Your task to perform on an android device: open wifi settings Image 0: 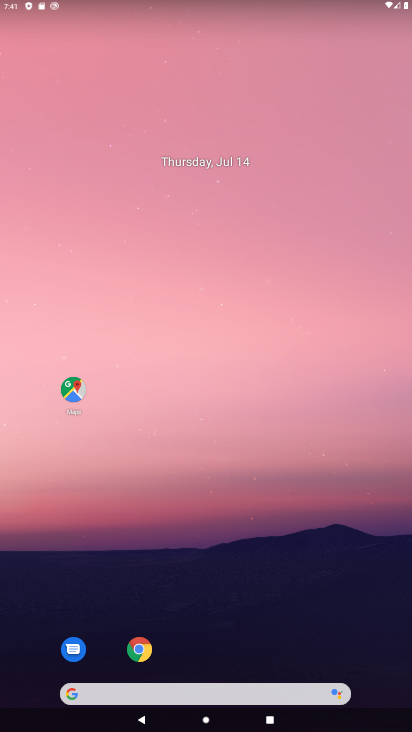
Step 0: drag from (228, 651) to (409, 713)
Your task to perform on an android device: open wifi settings Image 1: 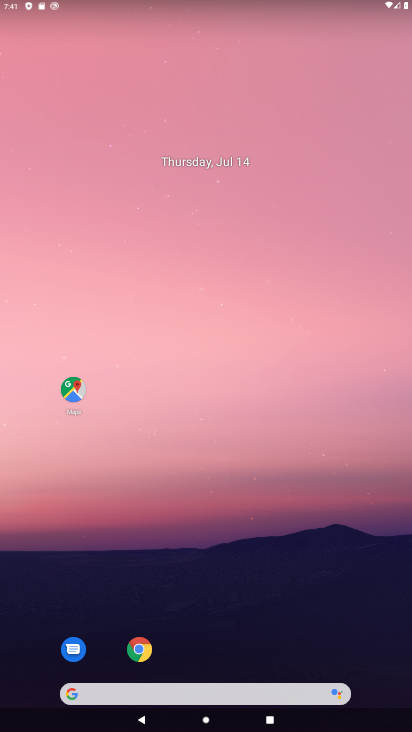
Step 1: drag from (314, 611) to (346, 143)
Your task to perform on an android device: open wifi settings Image 2: 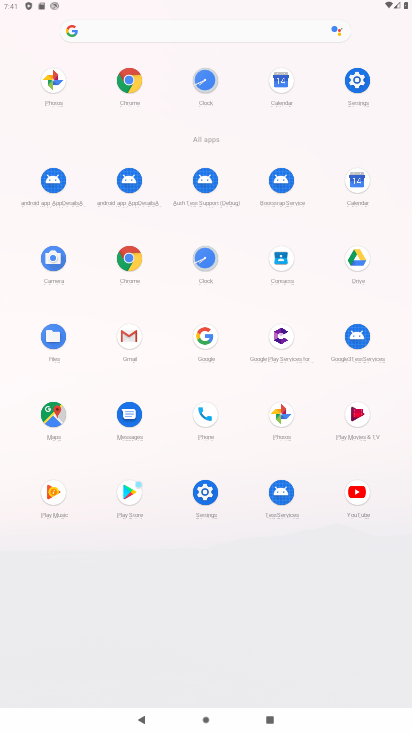
Step 2: click (369, 75)
Your task to perform on an android device: open wifi settings Image 3: 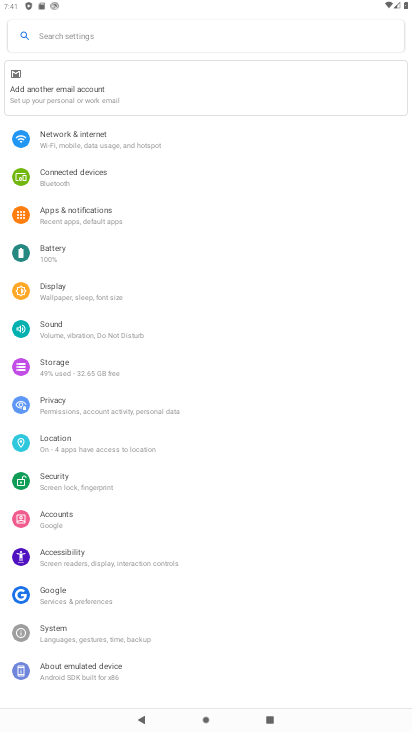
Step 3: click (55, 145)
Your task to perform on an android device: open wifi settings Image 4: 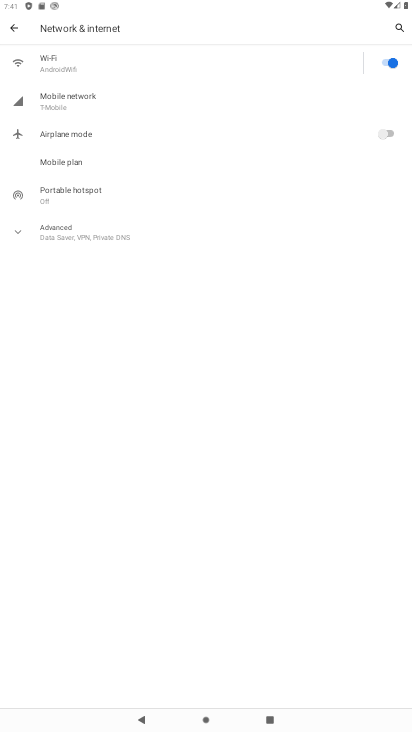
Step 4: click (48, 61)
Your task to perform on an android device: open wifi settings Image 5: 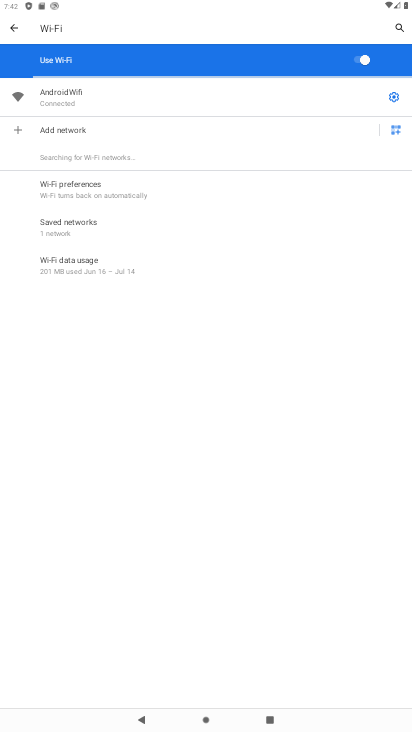
Step 5: press home button
Your task to perform on an android device: open wifi settings Image 6: 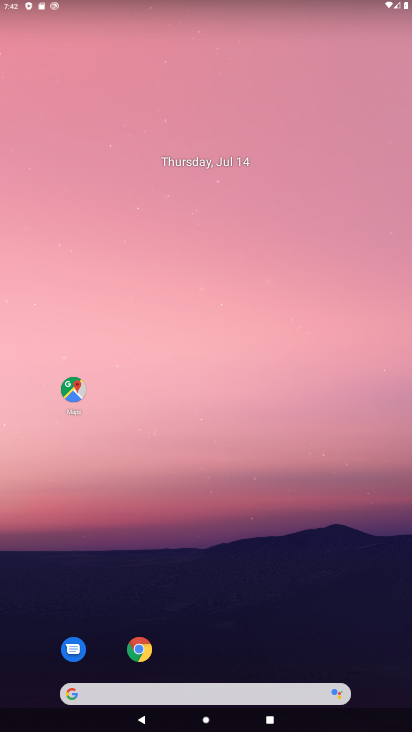
Step 6: drag from (307, 484) to (264, 9)
Your task to perform on an android device: open wifi settings Image 7: 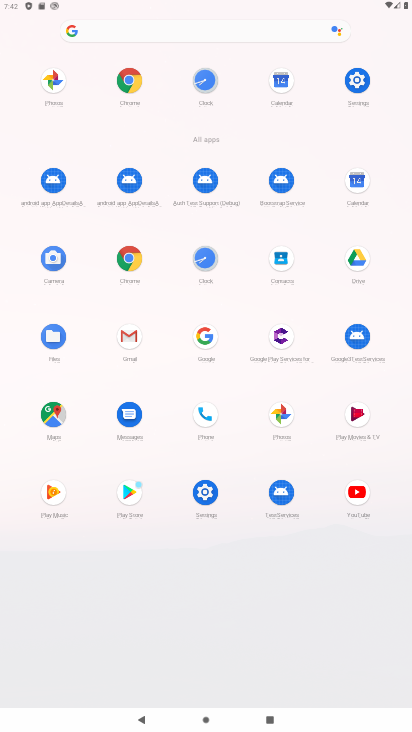
Step 7: click (354, 79)
Your task to perform on an android device: open wifi settings Image 8: 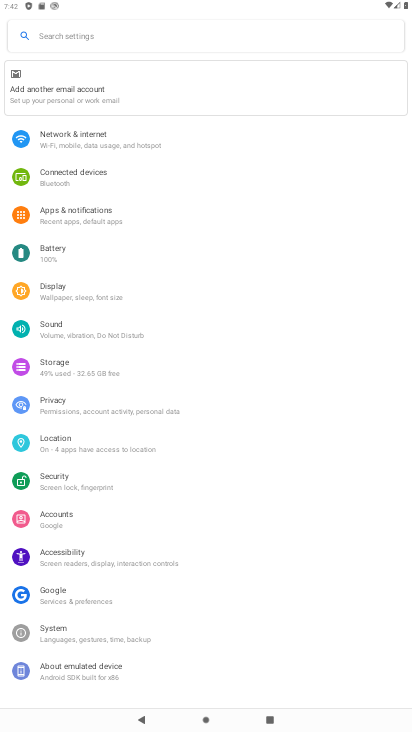
Step 8: click (105, 139)
Your task to perform on an android device: open wifi settings Image 9: 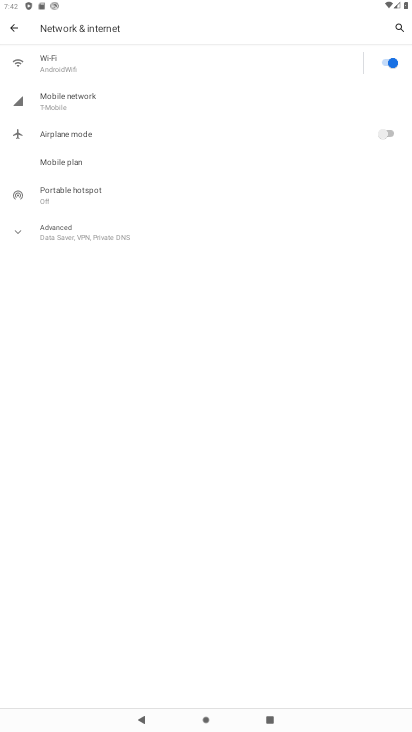
Step 9: click (59, 70)
Your task to perform on an android device: open wifi settings Image 10: 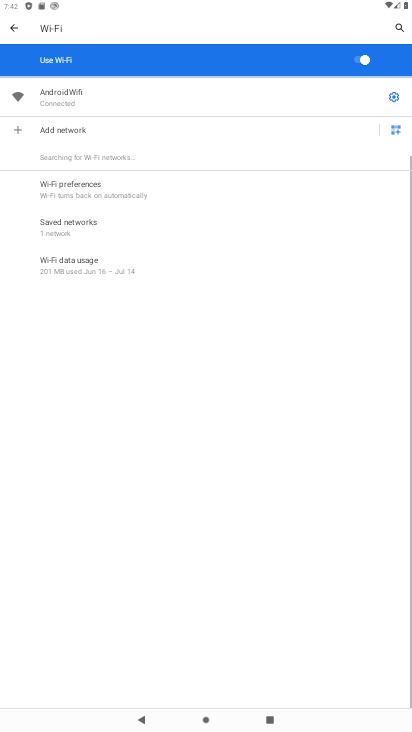
Step 10: task complete